Your task to perform on an android device: turn off location history Image 0: 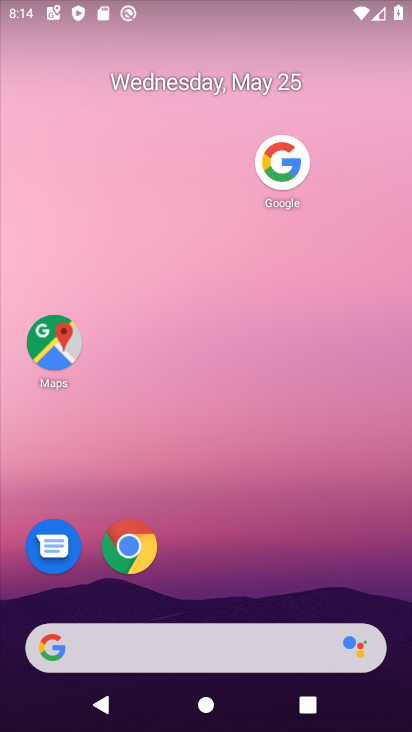
Step 0: click (52, 346)
Your task to perform on an android device: turn off location history Image 1: 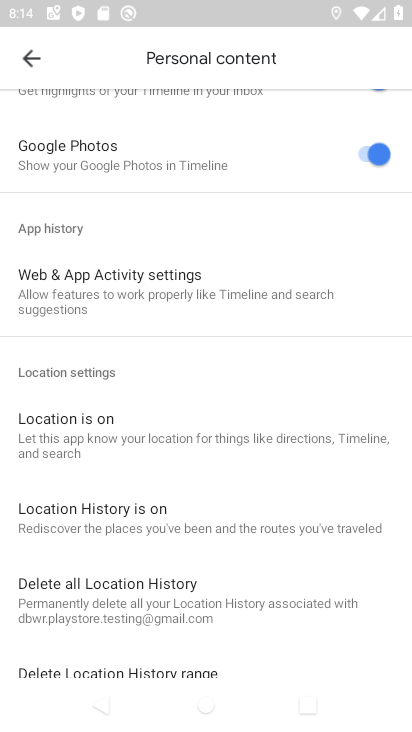
Step 1: click (159, 517)
Your task to perform on an android device: turn off location history Image 2: 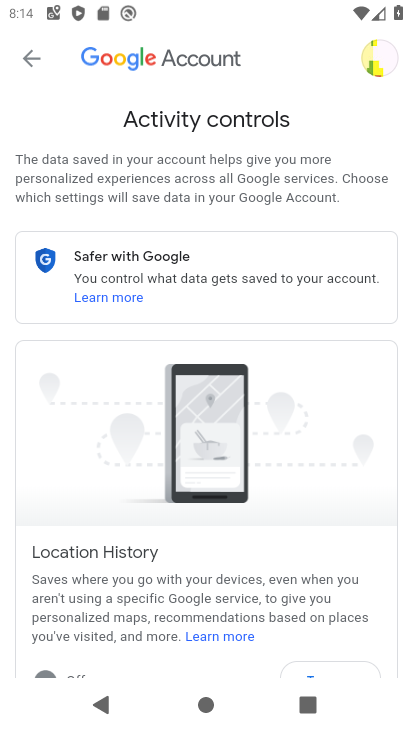
Step 2: task complete